Your task to perform on an android device: Go to Reddit.com Image 0: 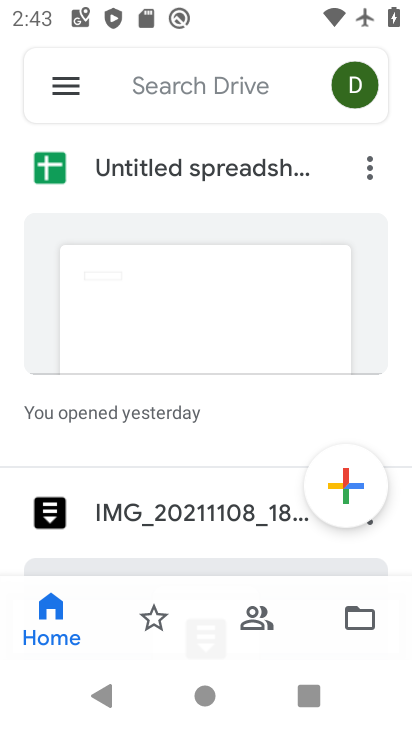
Step 0: press home button
Your task to perform on an android device: Go to Reddit.com Image 1: 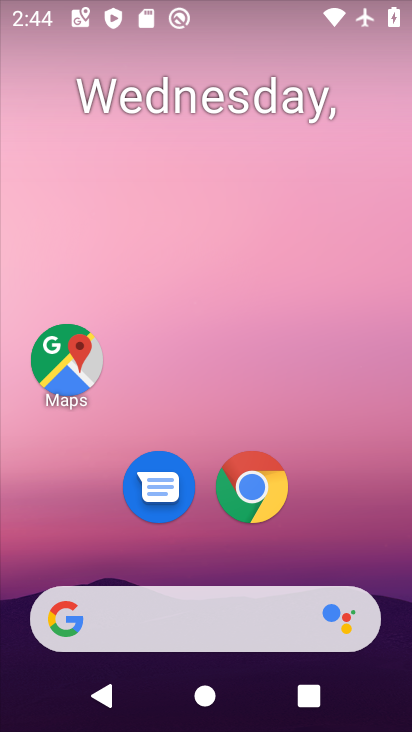
Step 1: click (262, 501)
Your task to perform on an android device: Go to Reddit.com Image 2: 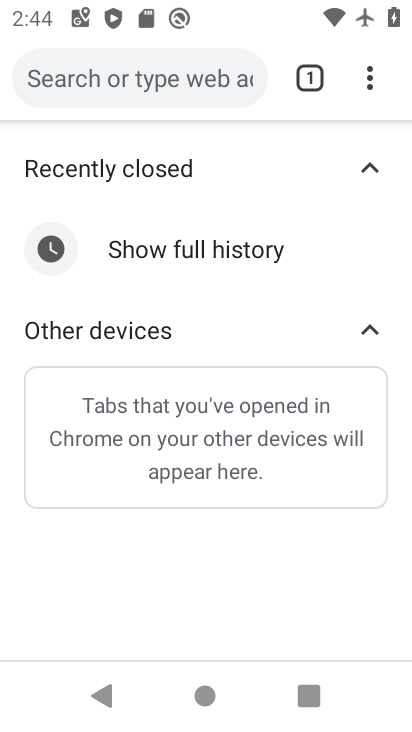
Step 2: click (178, 76)
Your task to perform on an android device: Go to Reddit.com Image 3: 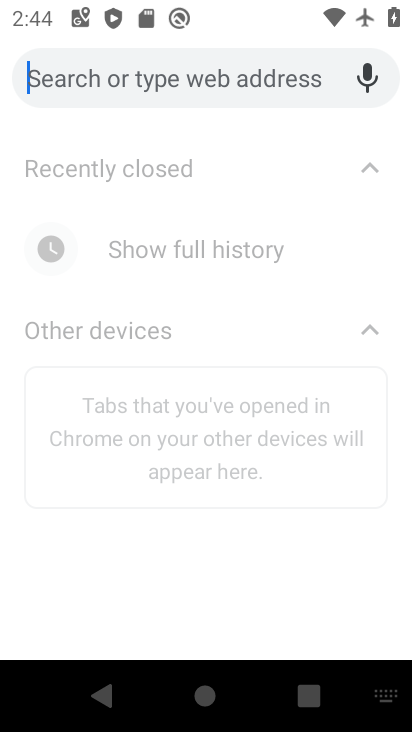
Step 3: type "reddit"
Your task to perform on an android device: Go to Reddit.com Image 4: 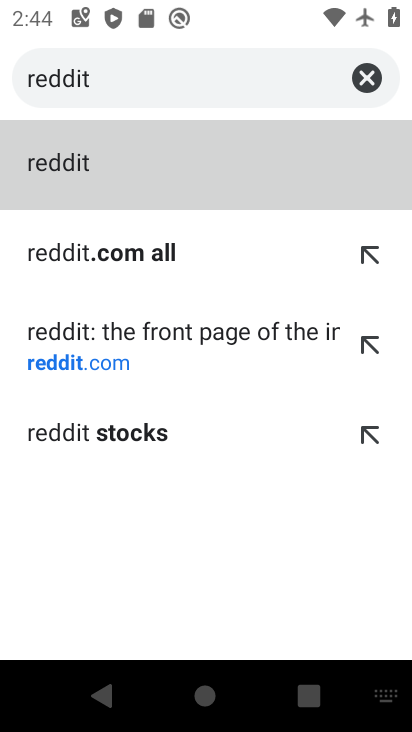
Step 4: click (100, 353)
Your task to perform on an android device: Go to Reddit.com Image 5: 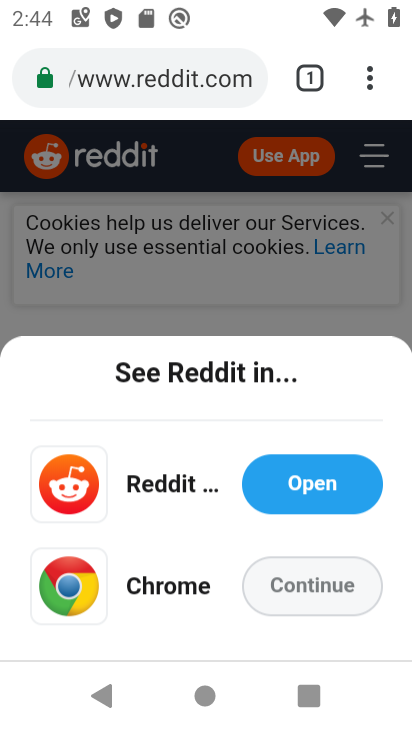
Step 5: task complete